Your task to perform on an android device: toggle javascript in the chrome app Image 0: 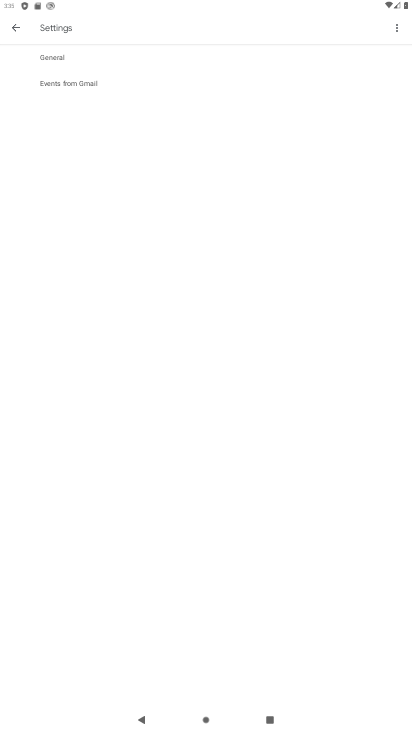
Step 0: drag from (250, 655) to (222, 73)
Your task to perform on an android device: toggle javascript in the chrome app Image 1: 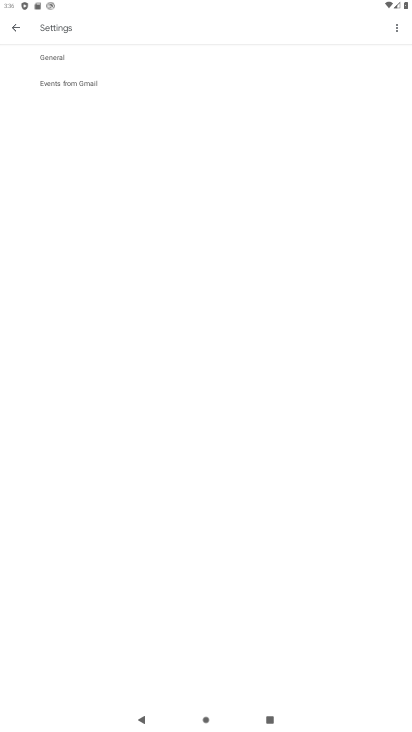
Step 1: press home button
Your task to perform on an android device: toggle javascript in the chrome app Image 2: 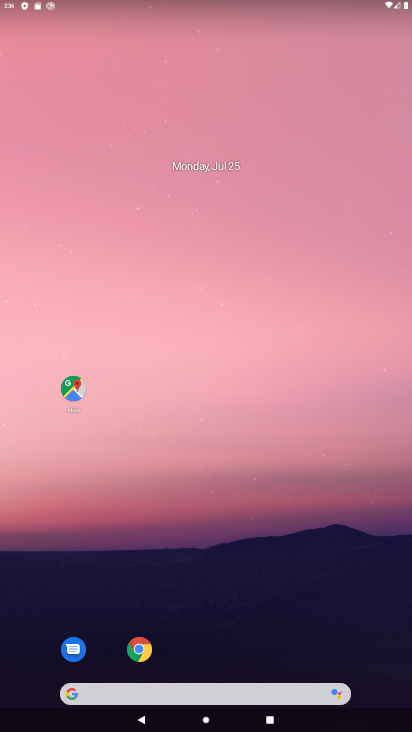
Step 2: drag from (126, 627) to (149, 176)
Your task to perform on an android device: toggle javascript in the chrome app Image 3: 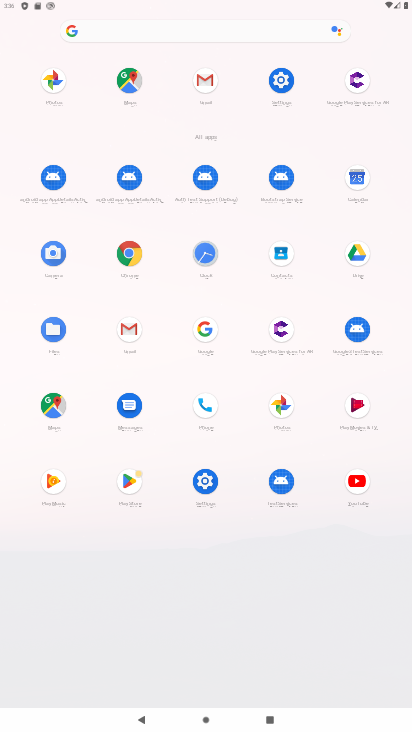
Step 3: click (131, 259)
Your task to perform on an android device: toggle javascript in the chrome app Image 4: 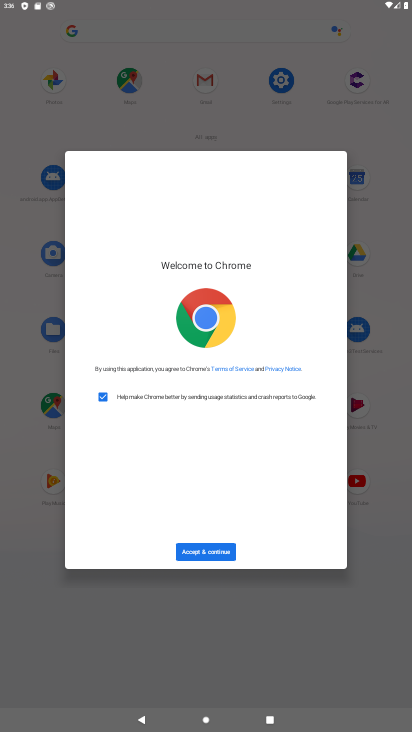
Step 4: click (196, 552)
Your task to perform on an android device: toggle javascript in the chrome app Image 5: 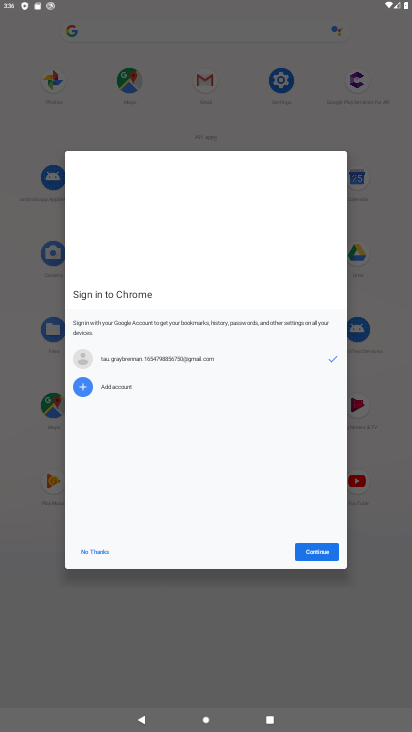
Step 5: click (318, 548)
Your task to perform on an android device: toggle javascript in the chrome app Image 6: 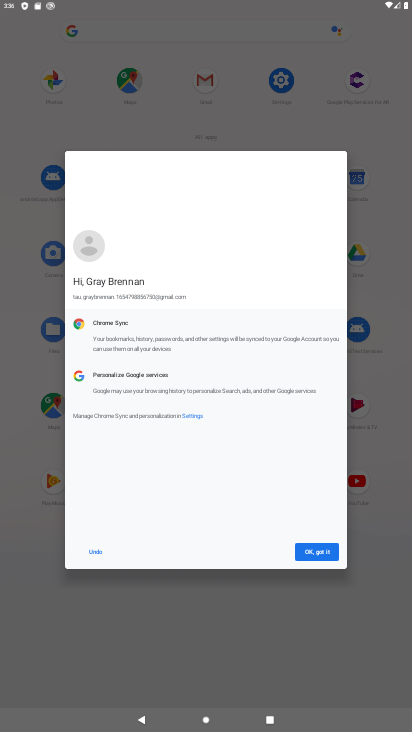
Step 6: click (317, 555)
Your task to perform on an android device: toggle javascript in the chrome app Image 7: 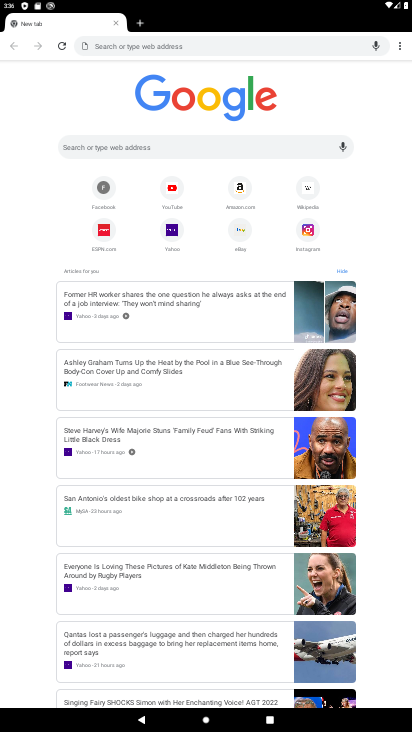
Step 7: click (403, 46)
Your task to perform on an android device: toggle javascript in the chrome app Image 8: 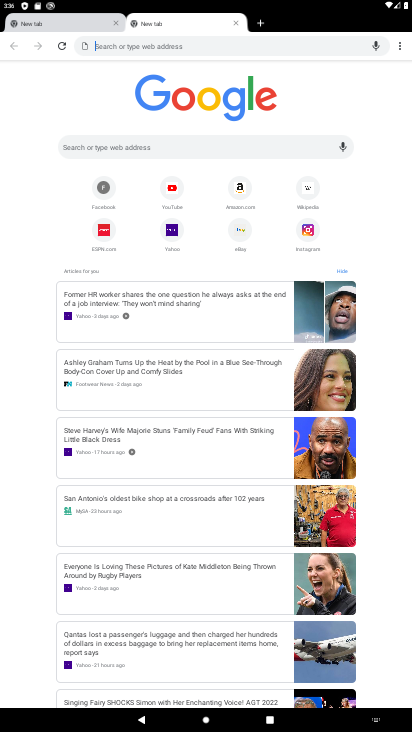
Step 8: click (407, 52)
Your task to perform on an android device: toggle javascript in the chrome app Image 9: 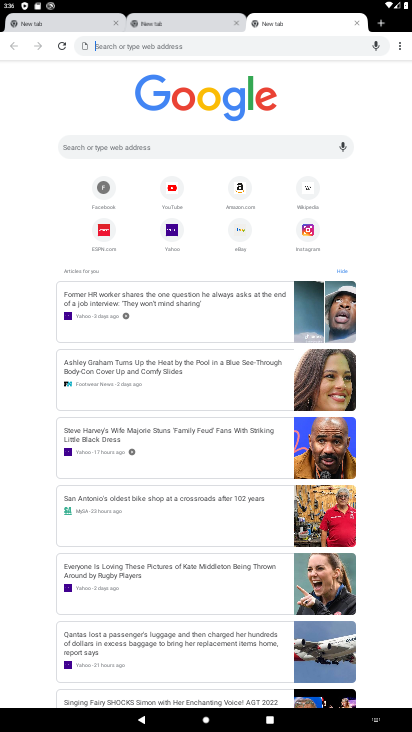
Step 9: click (405, 51)
Your task to perform on an android device: toggle javascript in the chrome app Image 10: 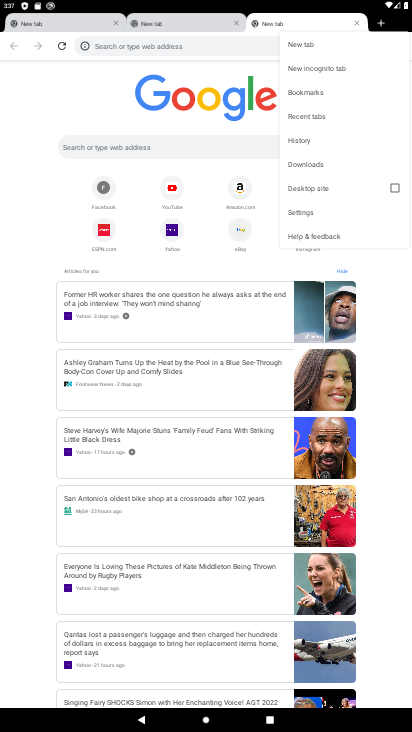
Step 10: click (307, 215)
Your task to perform on an android device: toggle javascript in the chrome app Image 11: 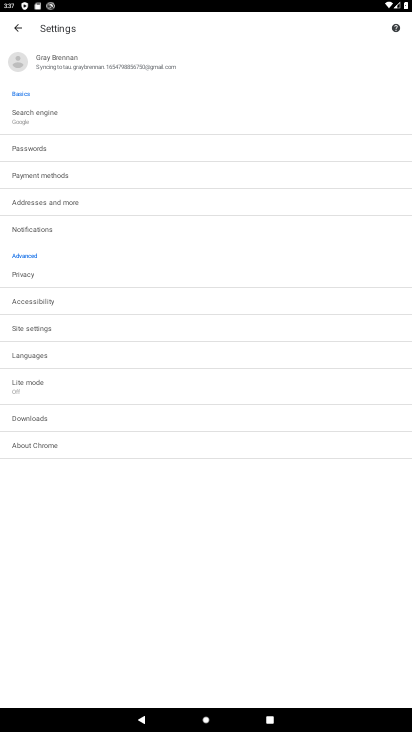
Step 11: click (50, 329)
Your task to perform on an android device: toggle javascript in the chrome app Image 12: 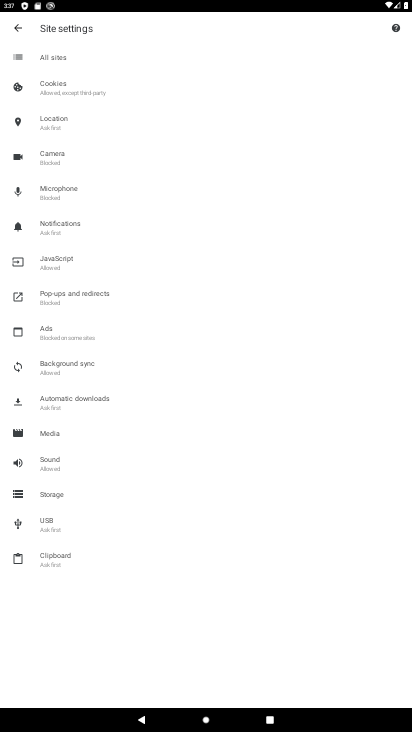
Step 12: click (70, 263)
Your task to perform on an android device: toggle javascript in the chrome app Image 13: 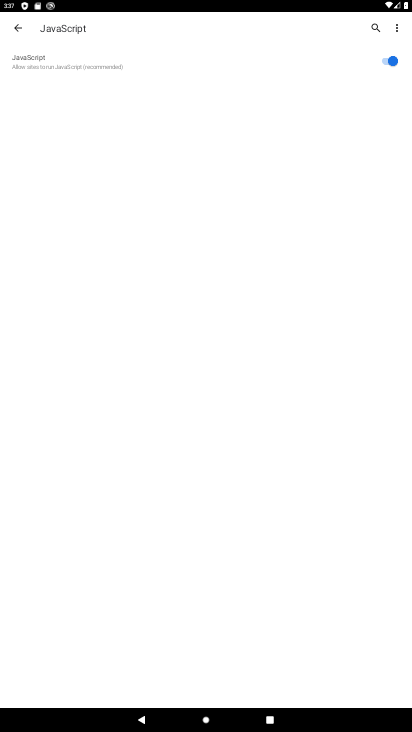
Step 13: click (383, 61)
Your task to perform on an android device: toggle javascript in the chrome app Image 14: 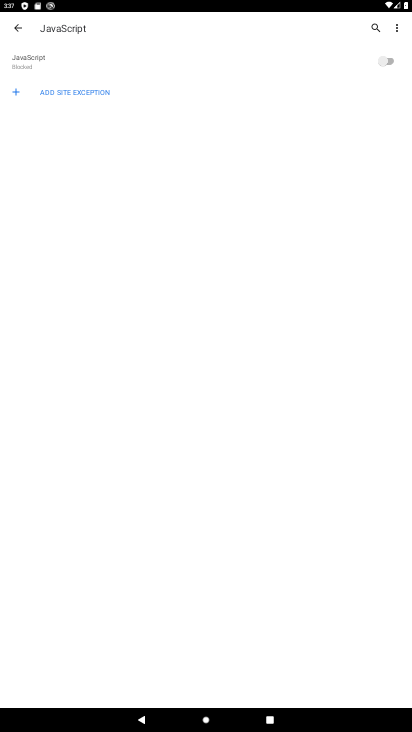
Step 14: task complete